Your task to perform on an android device: Is it going to rain today? Image 0: 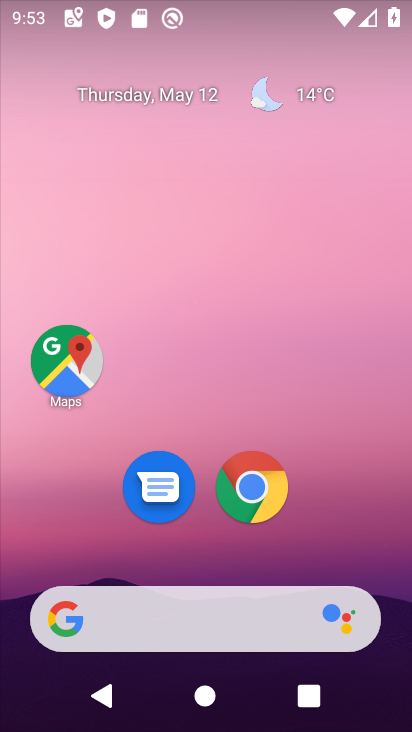
Step 0: click (159, 607)
Your task to perform on an android device: Is it going to rain today? Image 1: 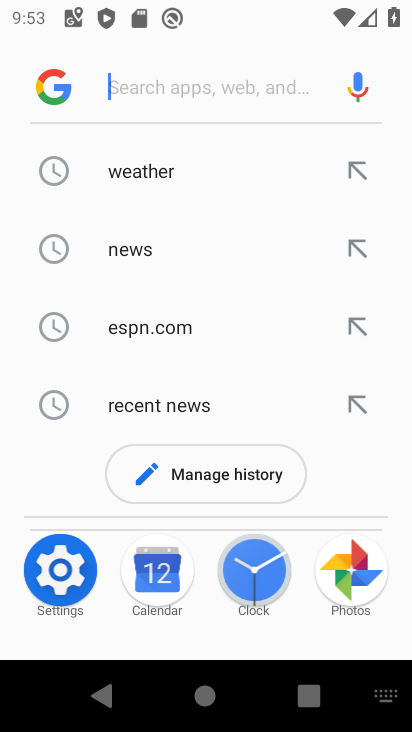
Step 1: click (147, 172)
Your task to perform on an android device: Is it going to rain today? Image 2: 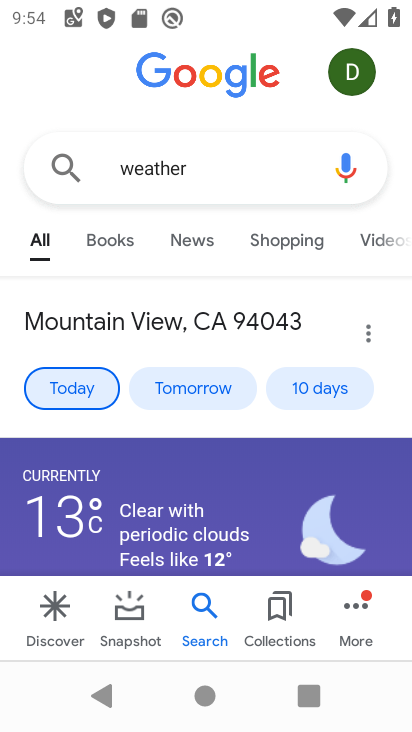
Step 2: task complete